Your task to perform on an android device: uninstall "DuckDuckGo Privacy Browser" Image 0: 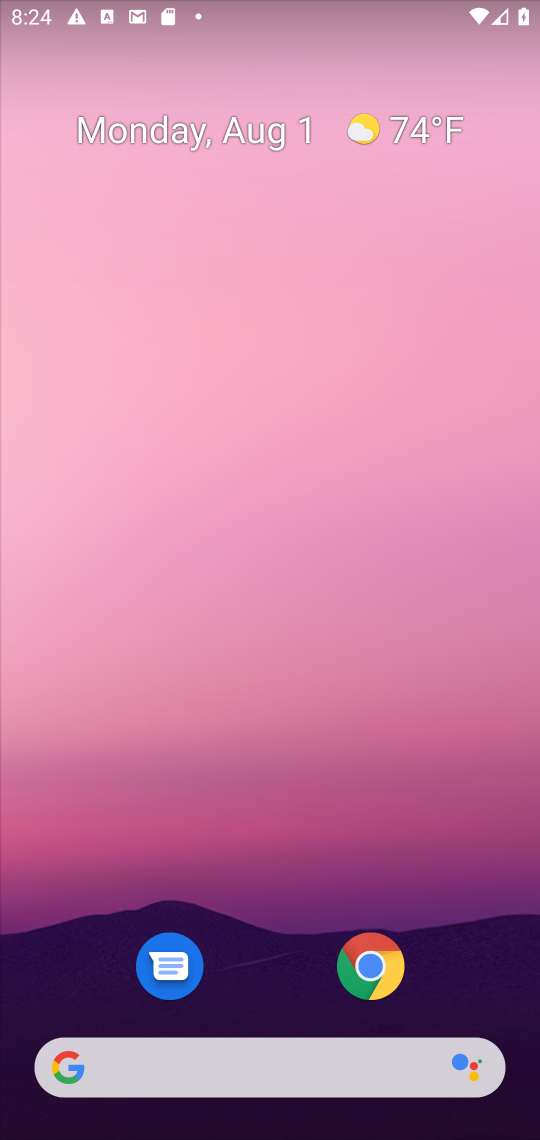
Step 0: drag from (522, 1064) to (460, 133)
Your task to perform on an android device: uninstall "DuckDuckGo Privacy Browser" Image 1: 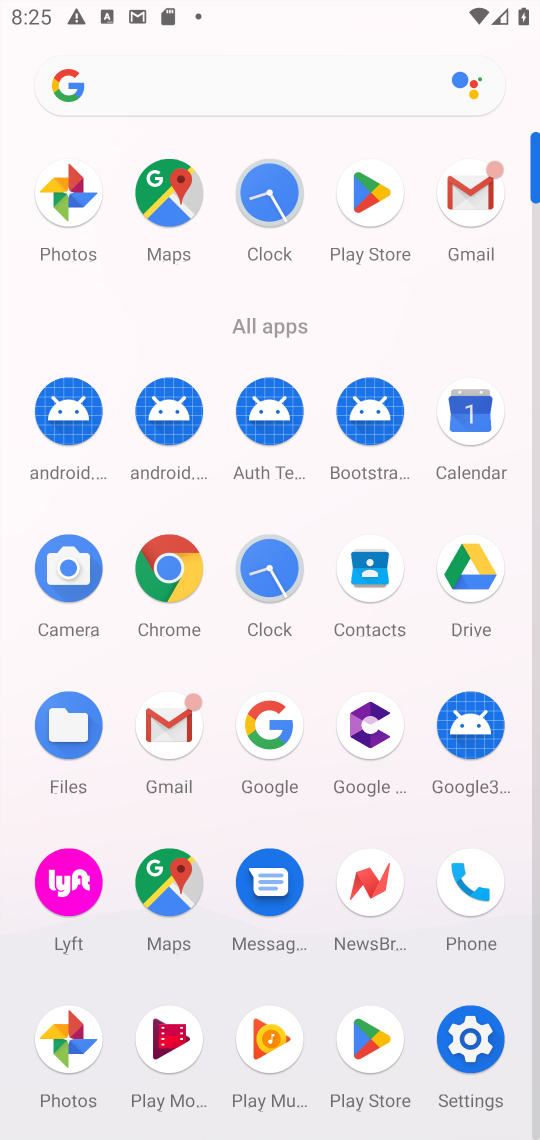
Step 1: task complete